Your task to perform on an android device: stop showing notifications on the lock screen Image 0: 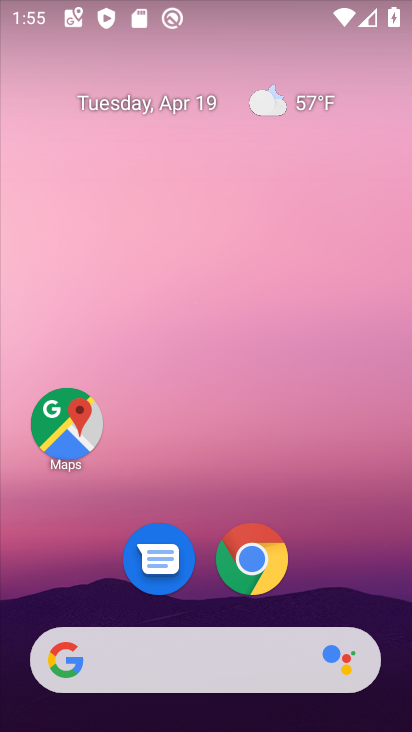
Step 0: drag from (198, 596) to (282, 35)
Your task to perform on an android device: stop showing notifications on the lock screen Image 1: 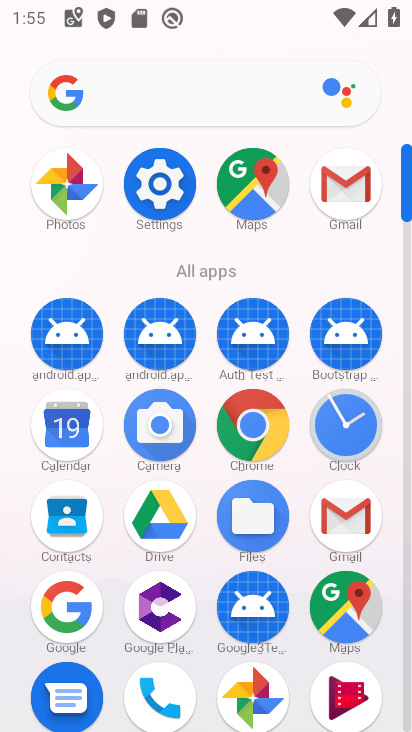
Step 1: click (156, 179)
Your task to perform on an android device: stop showing notifications on the lock screen Image 2: 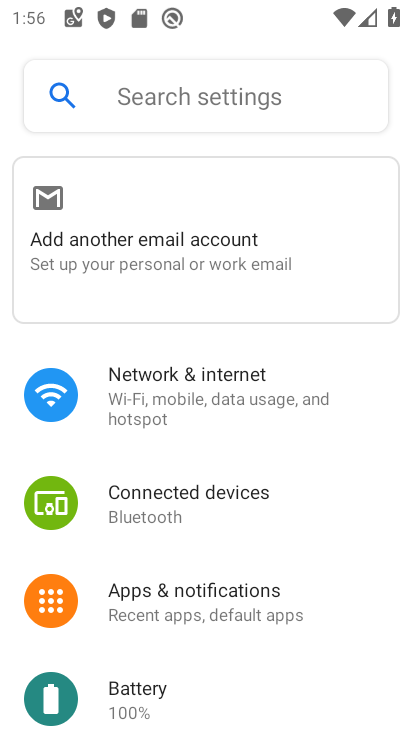
Step 2: click (216, 592)
Your task to perform on an android device: stop showing notifications on the lock screen Image 3: 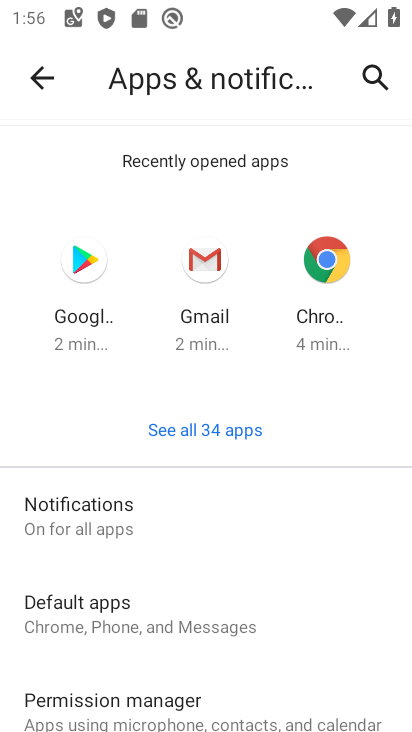
Step 3: click (147, 510)
Your task to perform on an android device: stop showing notifications on the lock screen Image 4: 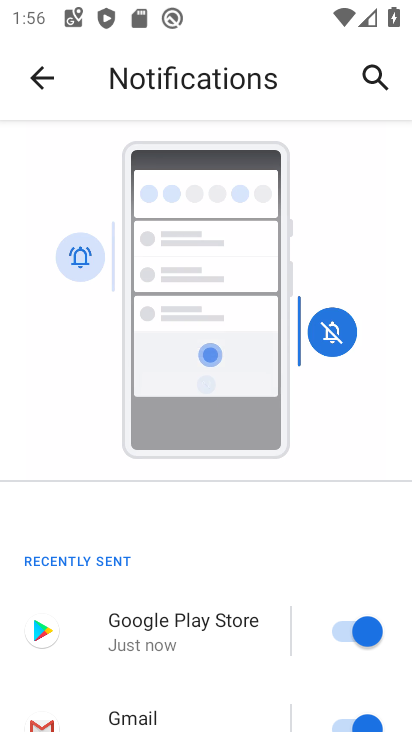
Step 4: drag from (169, 658) to (227, 133)
Your task to perform on an android device: stop showing notifications on the lock screen Image 5: 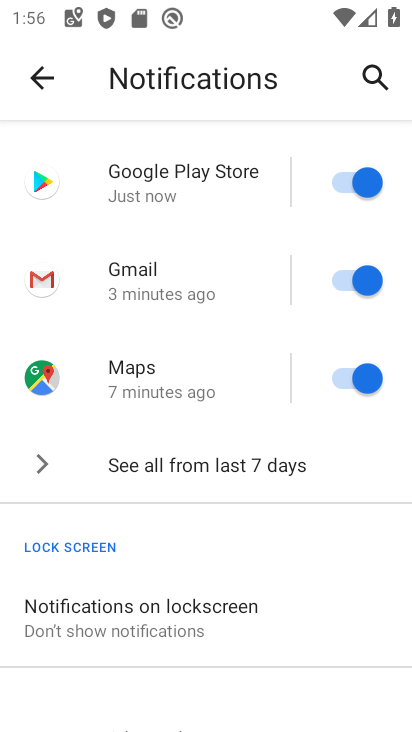
Step 5: click (111, 624)
Your task to perform on an android device: stop showing notifications on the lock screen Image 6: 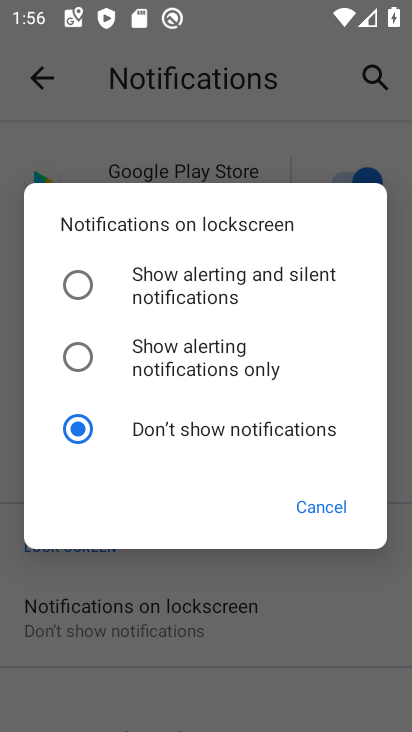
Step 6: click (74, 419)
Your task to perform on an android device: stop showing notifications on the lock screen Image 7: 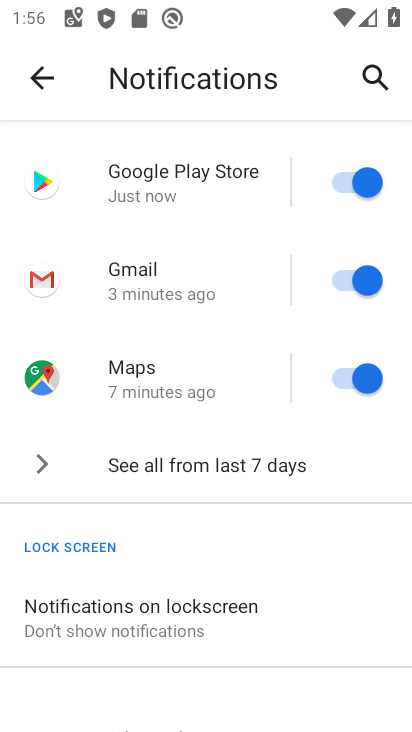
Step 7: task complete